Your task to perform on an android device: Open the stopwatch Image 0: 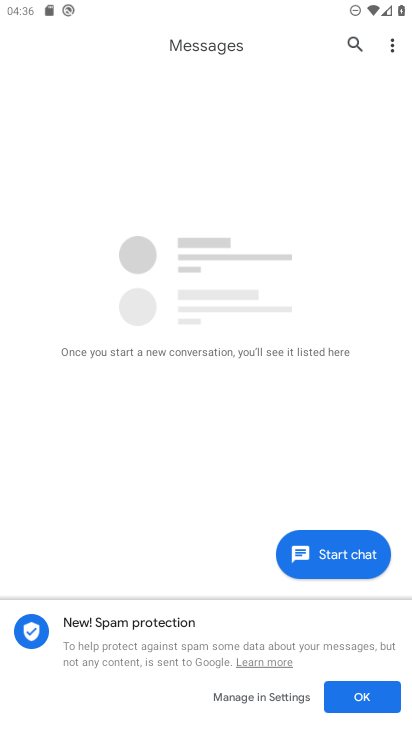
Step 0: press home button
Your task to perform on an android device: Open the stopwatch Image 1: 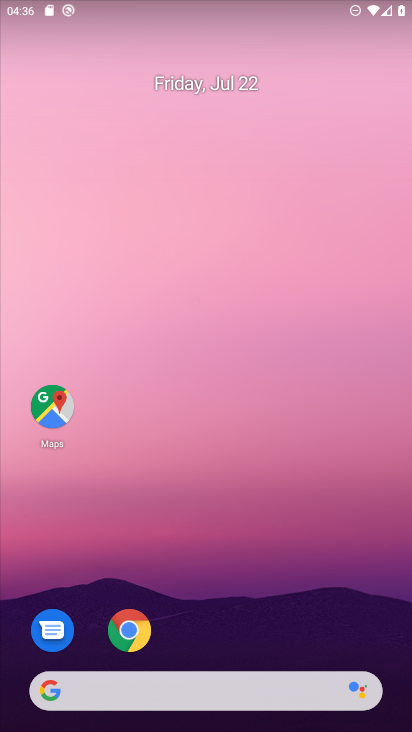
Step 1: drag from (224, 637) to (242, 198)
Your task to perform on an android device: Open the stopwatch Image 2: 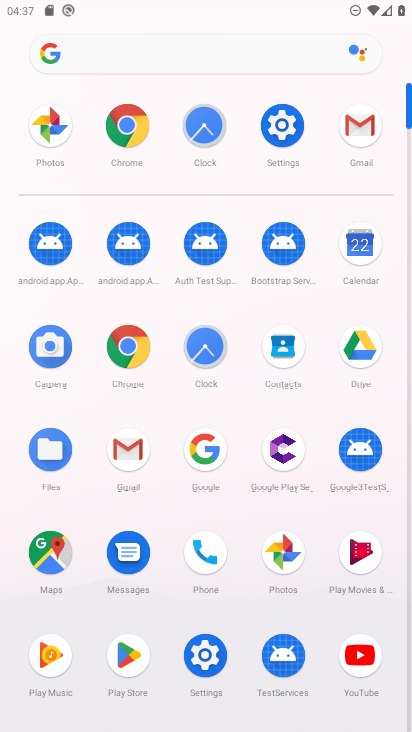
Step 2: click (210, 346)
Your task to perform on an android device: Open the stopwatch Image 3: 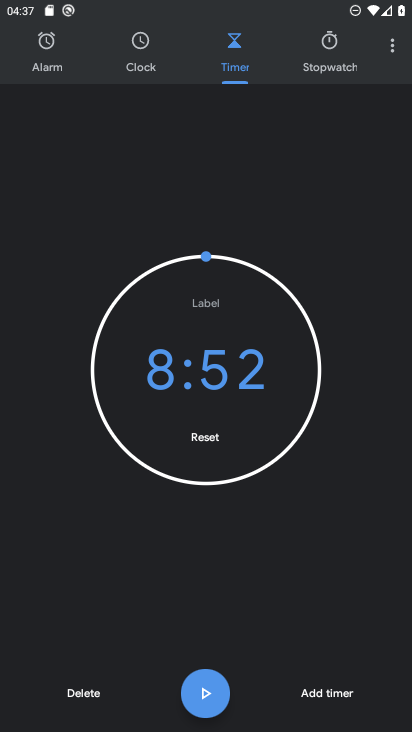
Step 3: click (328, 64)
Your task to perform on an android device: Open the stopwatch Image 4: 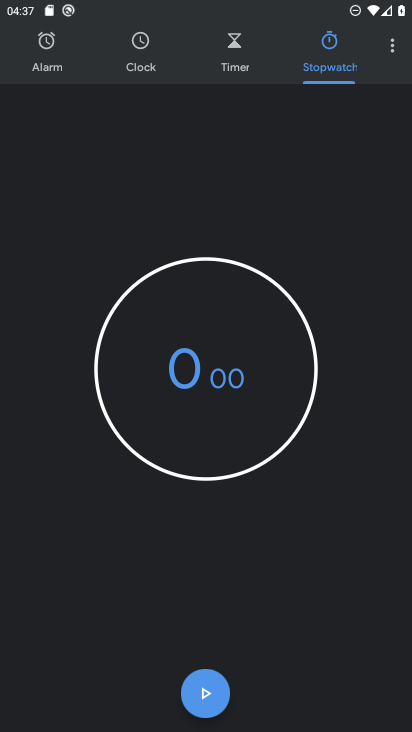
Step 4: click (194, 686)
Your task to perform on an android device: Open the stopwatch Image 5: 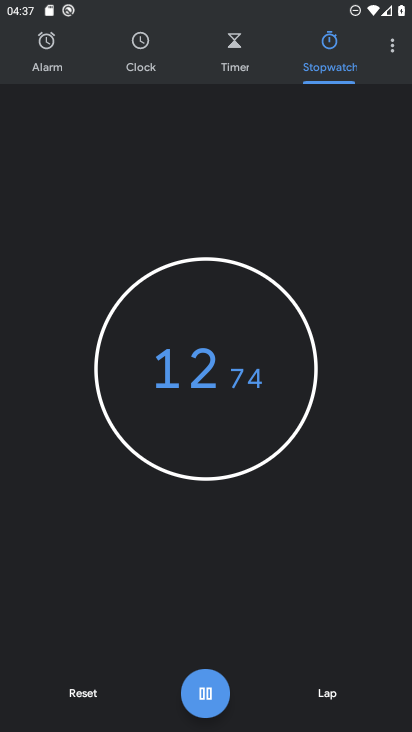
Step 5: task complete